Your task to perform on an android device: Open settings Image 0: 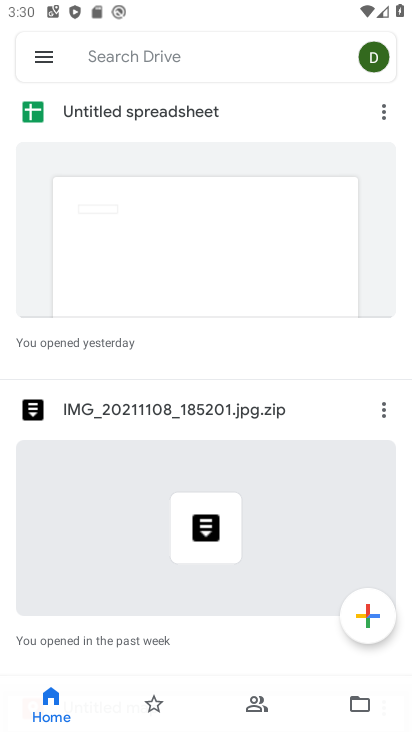
Step 0: press home button
Your task to perform on an android device: Open settings Image 1: 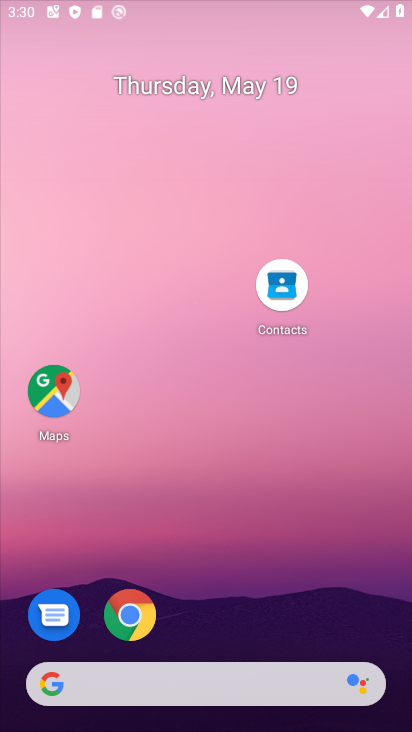
Step 1: drag from (243, 533) to (282, 237)
Your task to perform on an android device: Open settings Image 2: 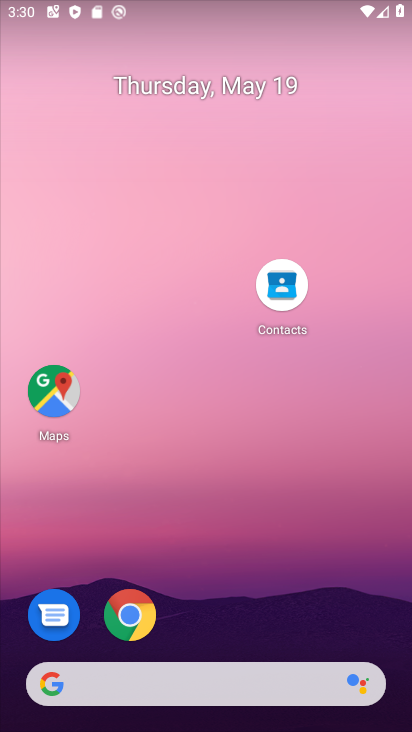
Step 2: drag from (238, 550) to (261, 146)
Your task to perform on an android device: Open settings Image 3: 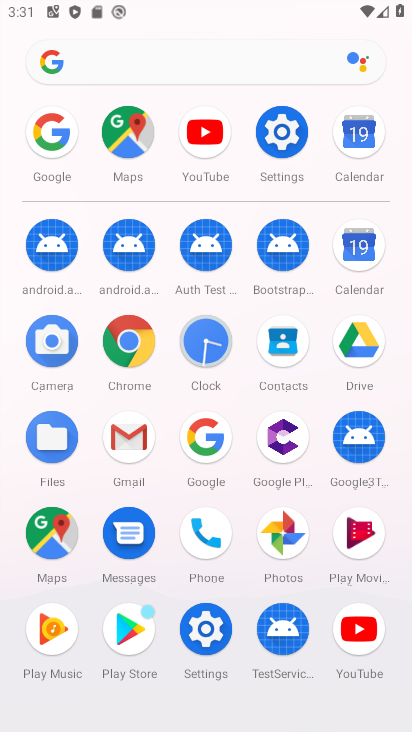
Step 3: click (284, 136)
Your task to perform on an android device: Open settings Image 4: 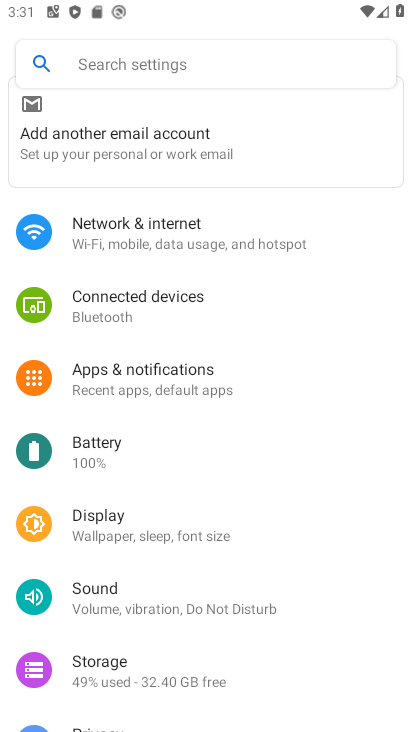
Step 4: task complete